Your task to perform on an android device: turn off javascript in the chrome app Image 0: 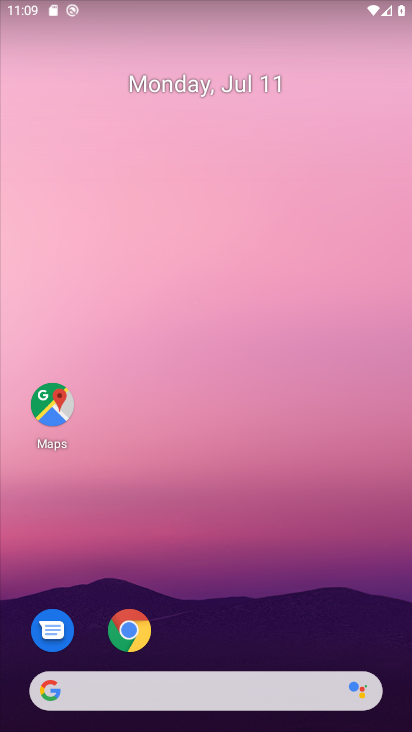
Step 0: click (139, 629)
Your task to perform on an android device: turn off javascript in the chrome app Image 1: 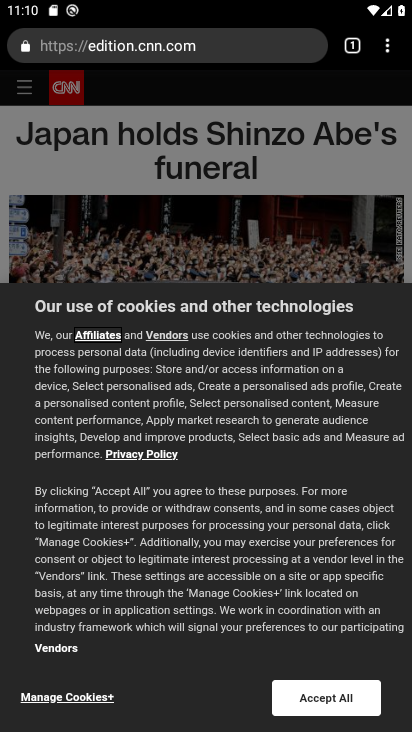
Step 1: click (387, 47)
Your task to perform on an android device: turn off javascript in the chrome app Image 2: 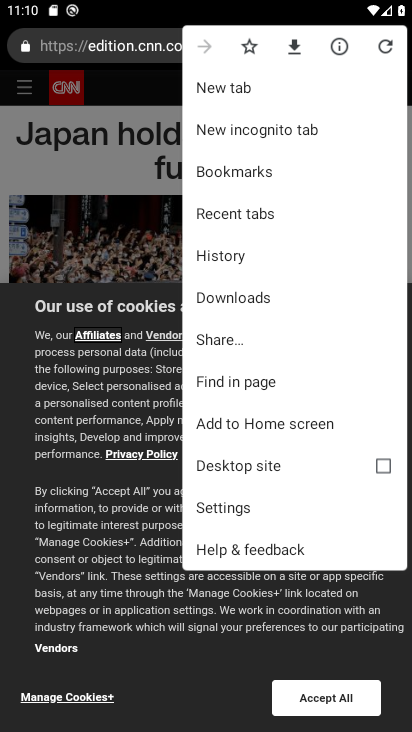
Step 2: click (238, 513)
Your task to perform on an android device: turn off javascript in the chrome app Image 3: 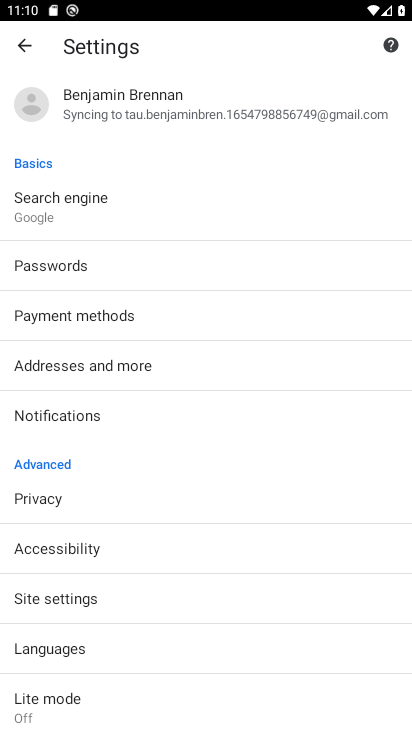
Step 3: click (68, 592)
Your task to perform on an android device: turn off javascript in the chrome app Image 4: 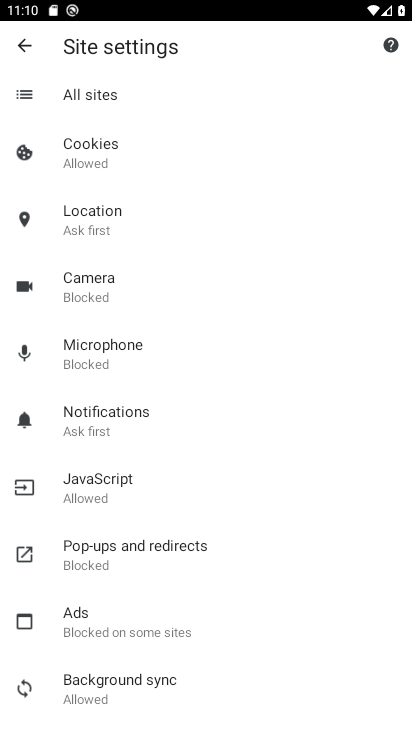
Step 4: click (97, 490)
Your task to perform on an android device: turn off javascript in the chrome app Image 5: 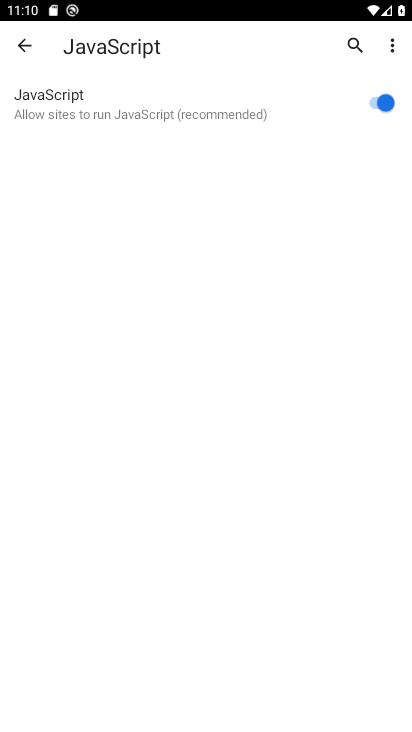
Step 5: click (368, 102)
Your task to perform on an android device: turn off javascript in the chrome app Image 6: 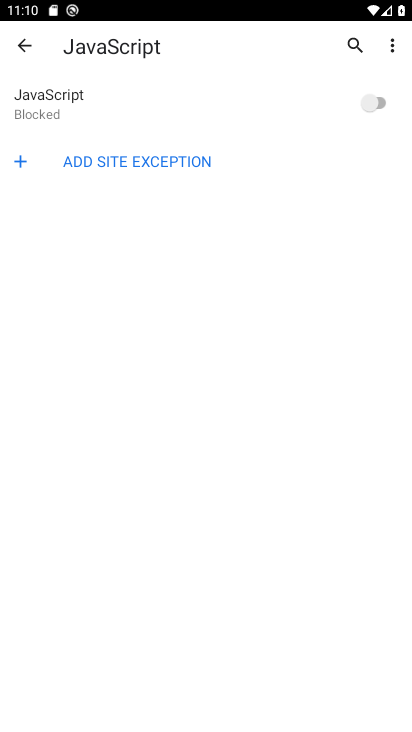
Step 6: task complete